Your task to perform on an android device: What's the weather? Image 0: 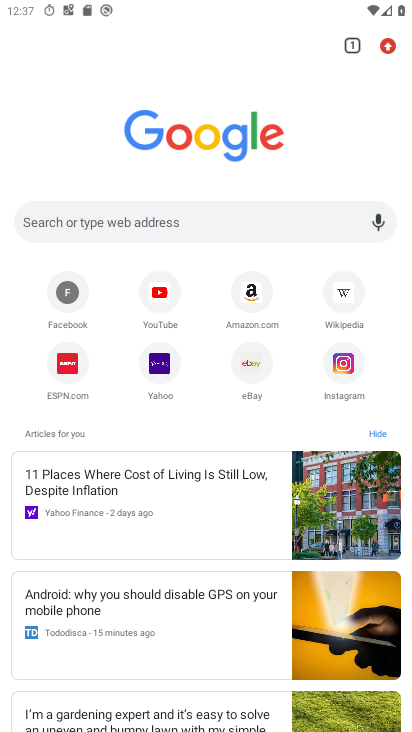
Step 0: click (208, 218)
Your task to perform on an android device: What's the weather? Image 1: 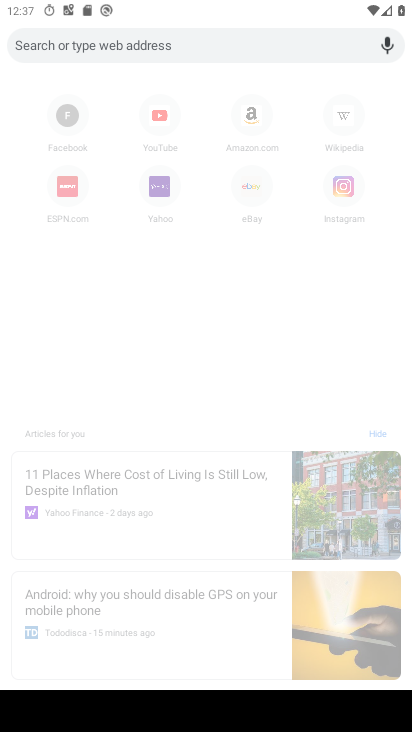
Step 1: type "weather"
Your task to perform on an android device: What's the weather? Image 2: 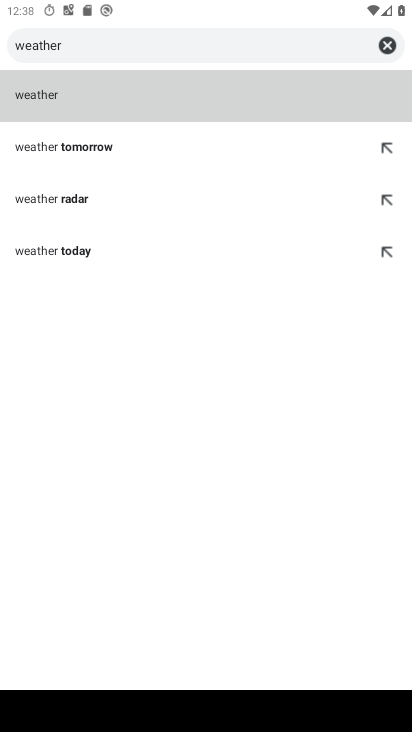
Step 2: click (115, 83)
Your task to perform on an android device: What's the weather? Image 3: 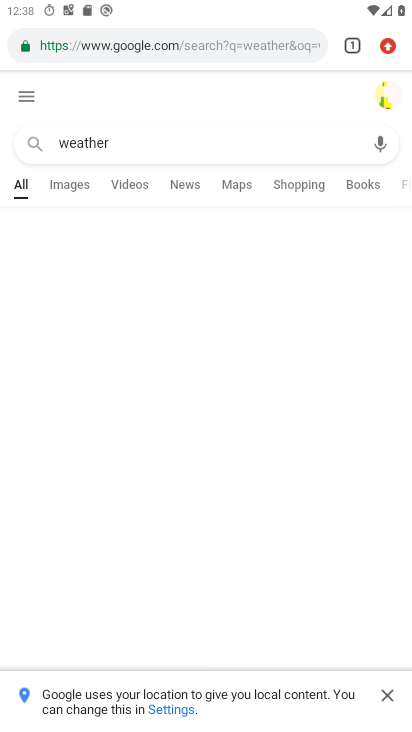
Step 3: task complete